Your task to perform on an android device: Go to eBay Image 0: 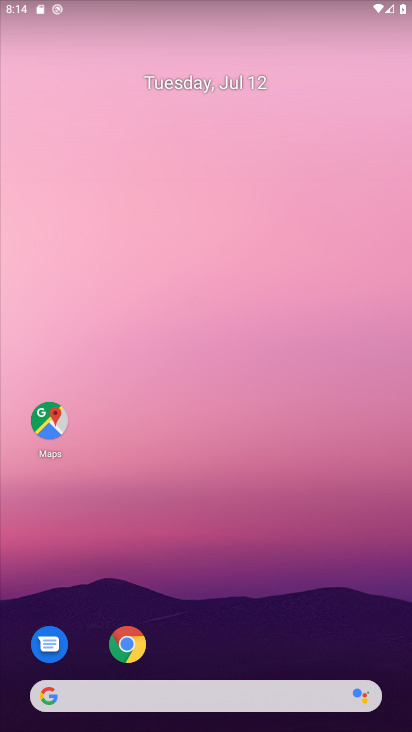
Step 0: drag from (277, 621) to (287, 132)
Your task to perform on an android device: Go to eBay Image 1: 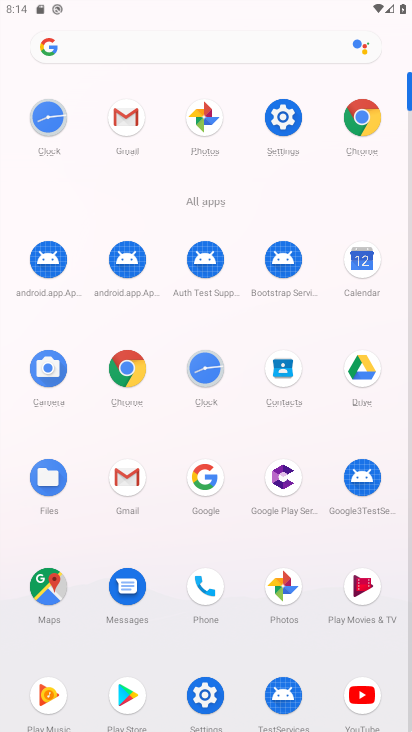
Step 1: click (117, 385)
Your task to perform on an android device: Go to eBay Image 2: 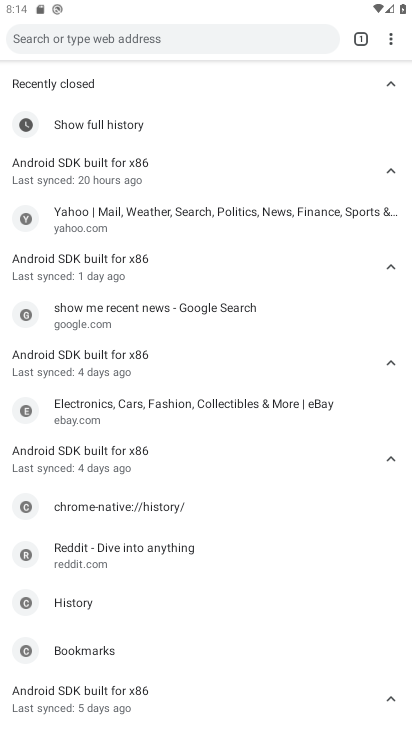
Step 2: press back button
Your task to perform on an android device: Go to eBay Image 3: 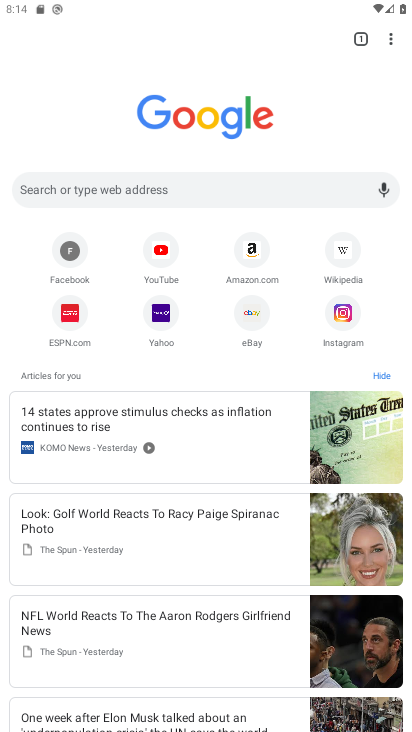
Step 3: click (253, 318)
Your task to perform on an android device: Go to eBay Image 4: 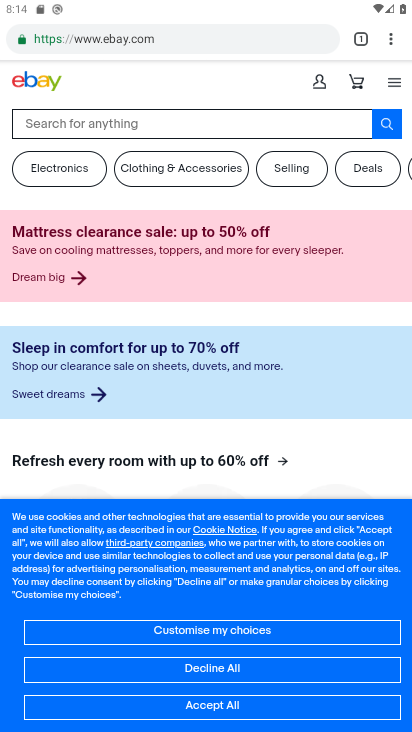
Step 4: task complete